Your task to perform on an android device: toggle priority inbox in the gmail app Image 0: 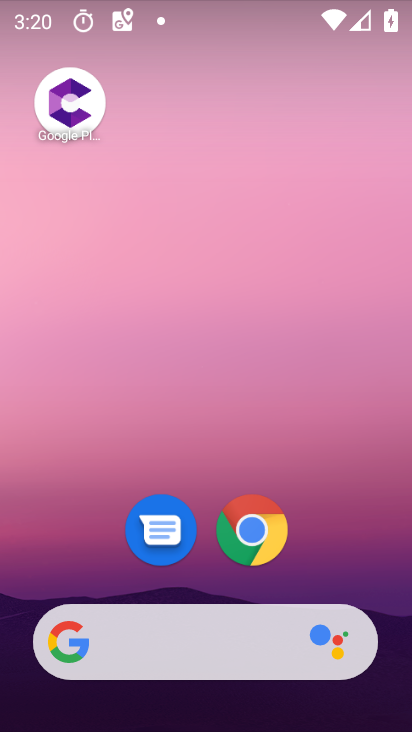
Step 0: drag from (345, 504) to (401, 46)
Your task to perform on an android device: toggle priority inbox in the gmail app Image 1: 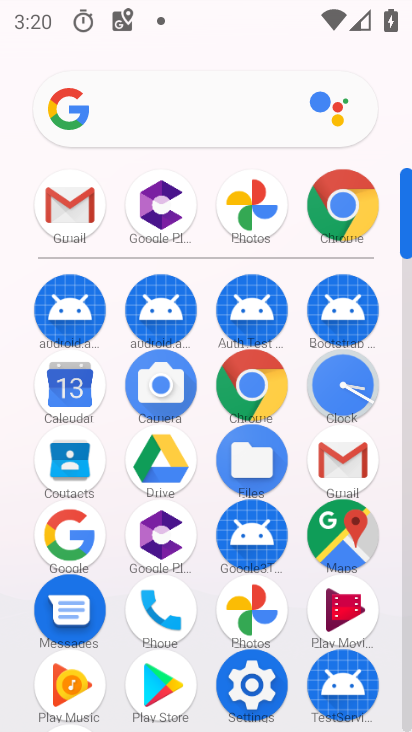
Step 1: click (64, 221)
Your task to perform on an android device: toggle priority inbox in the gmail app Image 2: 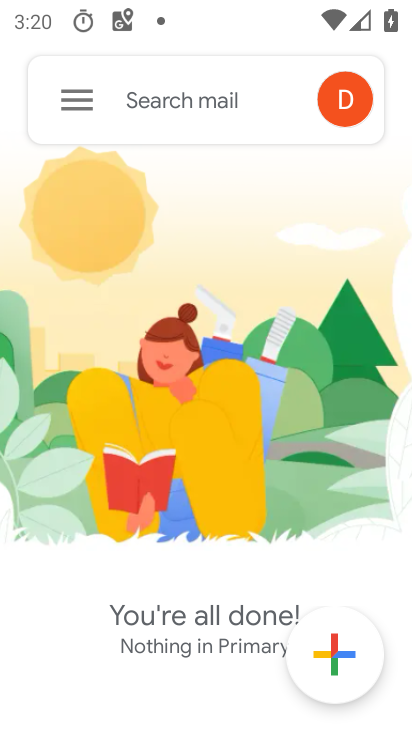
Step 2: click (57, 94)
Your task to perform on an android device: toggle priority inbox in the gmail app Image 3: 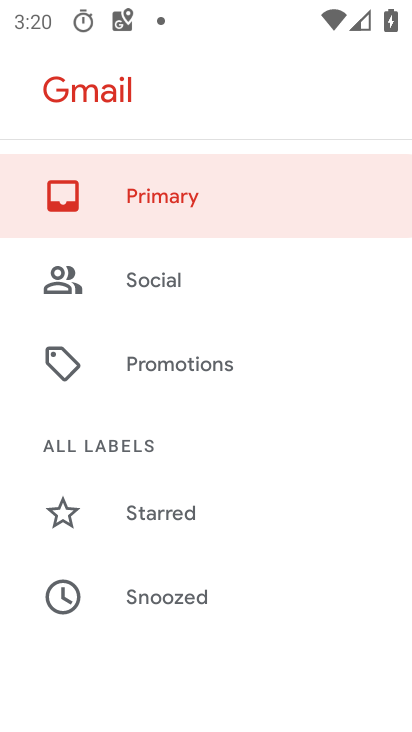
Step 3: drag from (117, 613) to (287, 69)
Your task to perform on an android device: toggle priority inbox in the gmail app Image 4: 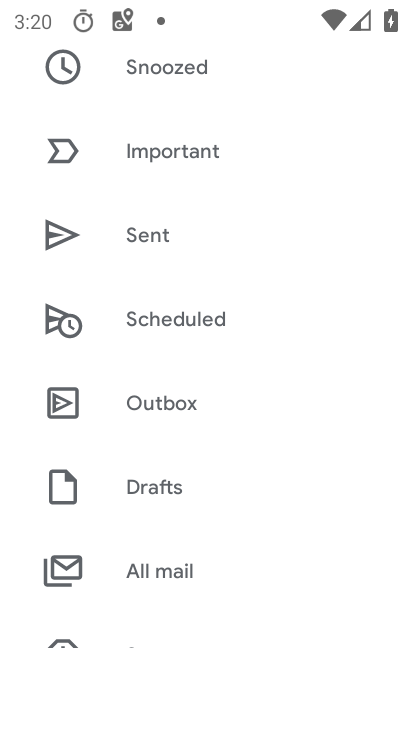
Step 4: drag from (156, 590) to (347, 109)
Your task to perform on an android device: toggle priority inbox in the gmail app Image 5: 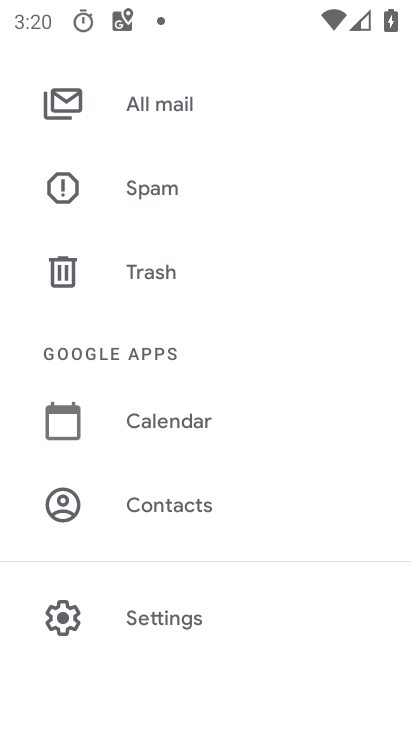
Step 5: click (155, 621)
Your task to perform on an android device: toggle priority inbox in the gmail app Image 6: 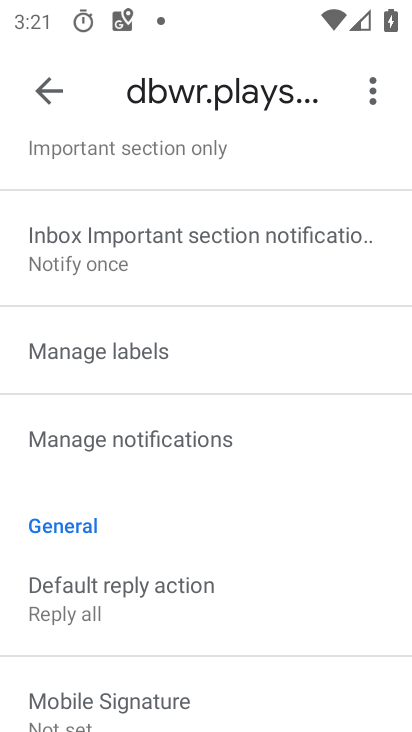
Step 6: drag from (188, 294) to (203, 667)
Your task to perform on an android device: toggle priority inbox in the gmail app Image 7: 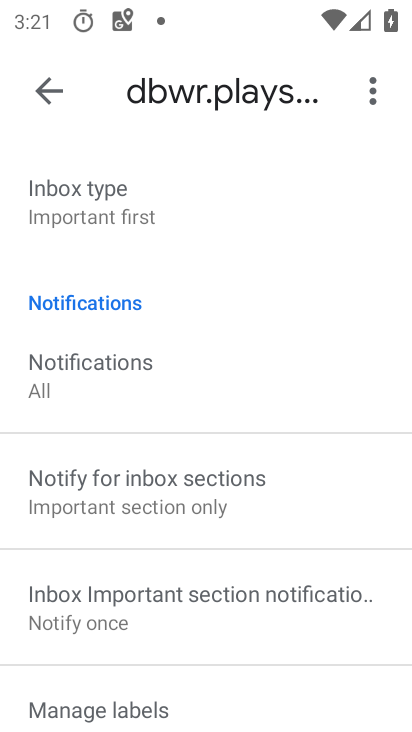
Step 7: drag from (129, 228) to (170, 566)
Your task to perform on an android device: toggle priority inbox in the gmail app Image 8: 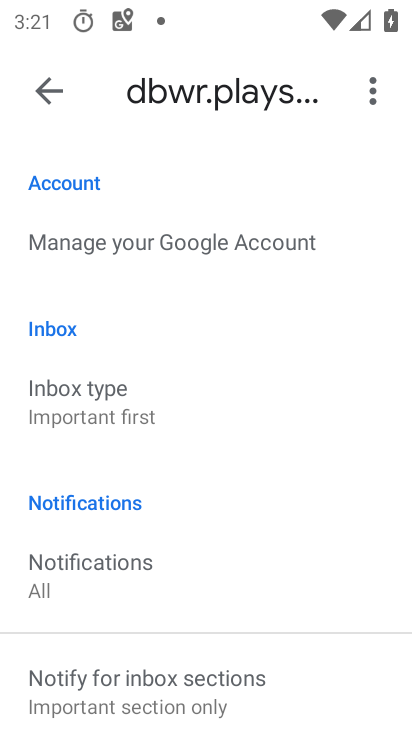
Step 8: click (100, 413)
Your task to perform on an android device: toggle priority inbox in the gmail app Image 9: 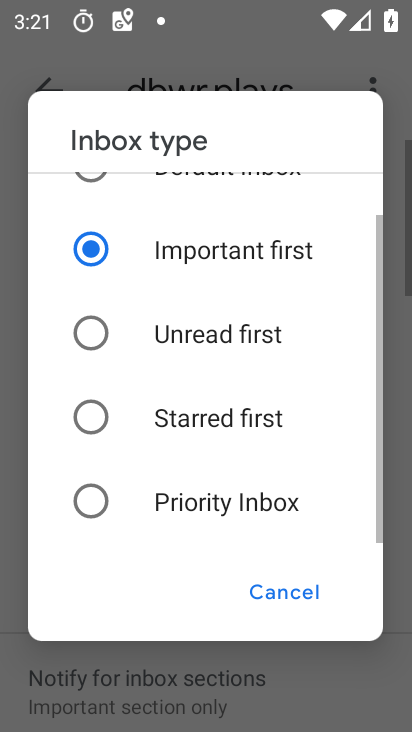
Step 9: click (185, 514)
Your task to perform on an android device: toggle priority inbox in the gmail app Image 10: 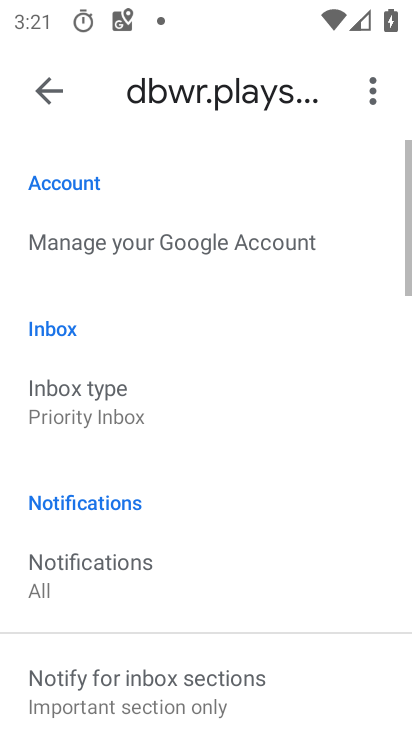
Step 10: task complete